Your task to perform on an android device: turn off wifi Image 0: 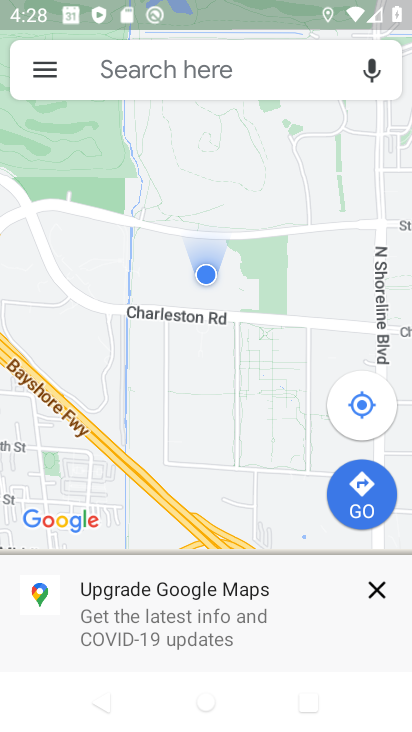
Step 0: press home button
Your task to perform on an android device: turn off wifi Image 1: 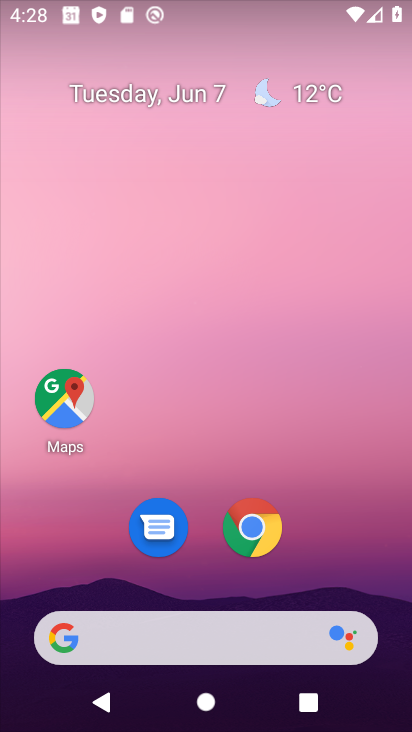
Step 1: drag from (337, 553) to (240, 151)
Your task to perform on an android device: turn off wifi Image 2: 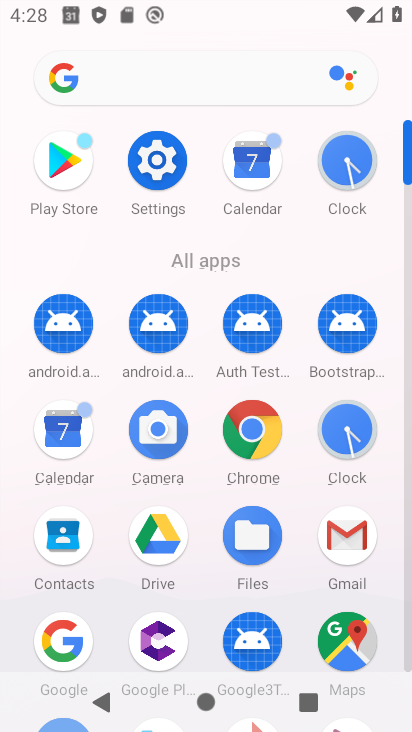
Step 2: click (156, 156)
Your task to perform on an android device: turn off wifi Image 3: 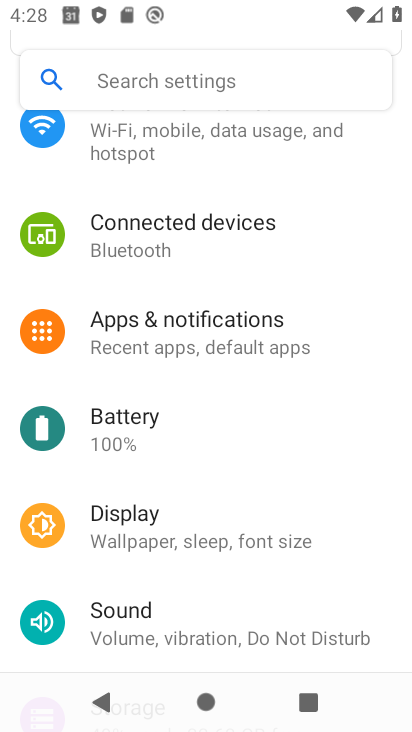
Step 3: drag from (215, 193) to (223, 359)
Your task to perform on an android device: turn off wifi Image 4: 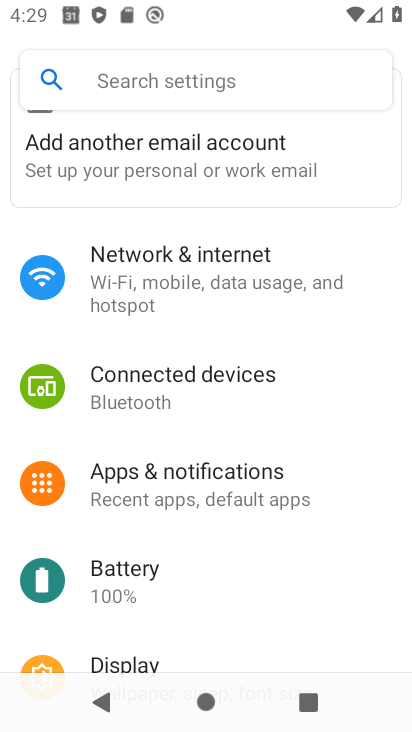
Step 4: click (219, 265)
Your task to perform on an android device: turn off wifi Image 5: 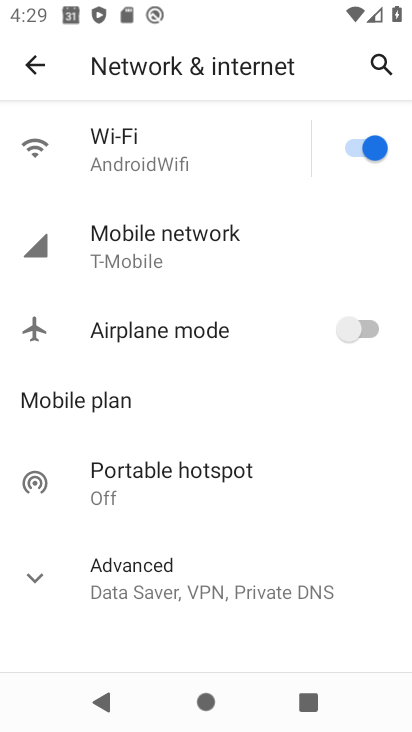
Step 5: click (353, 142)
Your task to perform on an android device: turn off wifi Image 6: 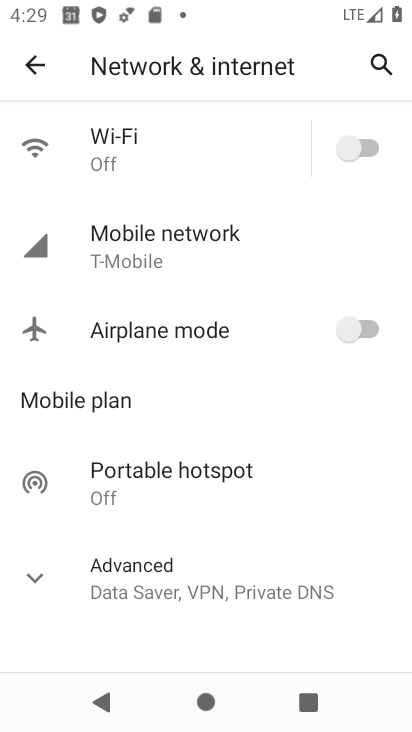
Step 6: task complete